Your task to perform on an android device: Search for sushi restaurants on Maps Image 0: 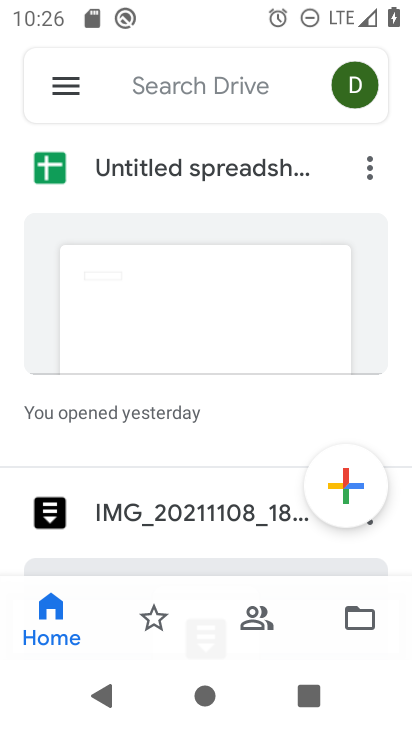
Step 0: press home button
Your task to perform on an android device: Search for sushi restaurants on Maps Image 1: 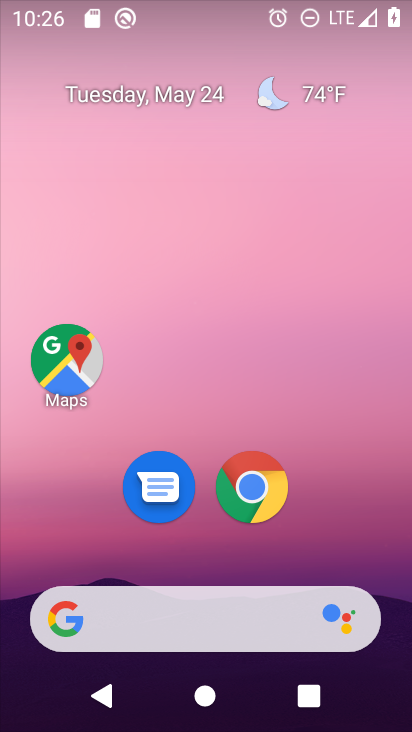
Step 1: click (65, 364)
Your task to perform on an android device: Search for sushi restaurants on Maps Image 2: 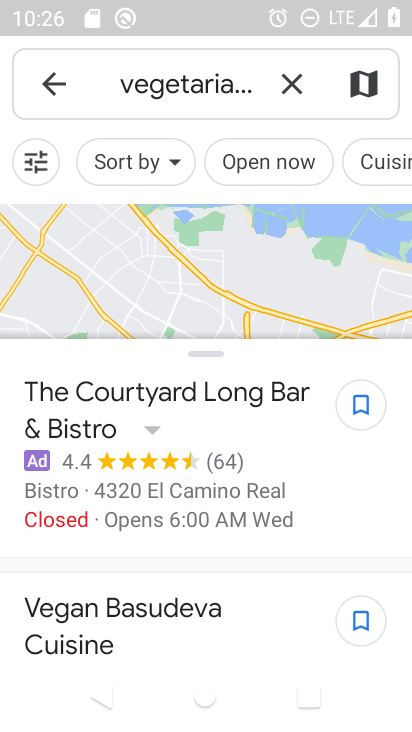
Step 2: click (278, 90)
Your task to perform on an android device: Search for sushi restaurants on Maps Image 3: 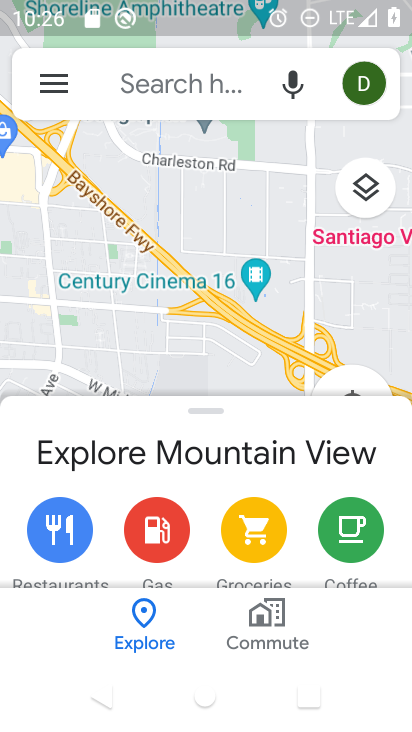
Step 3: click (121, 82)
Your task to perform on an android device: Search for sushi restaurants on Maps Image 4: 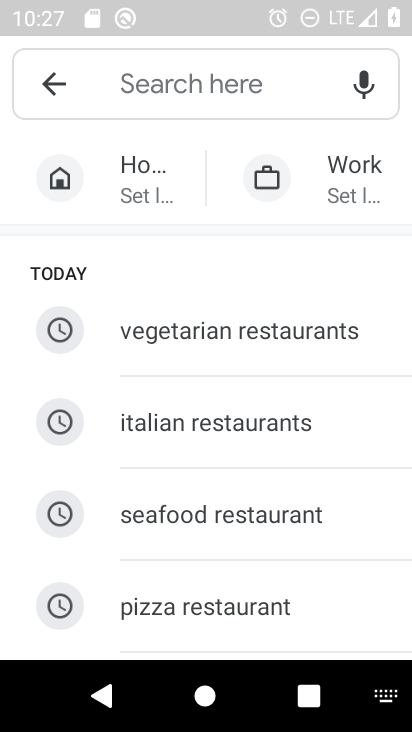
Step 4: type "sushi restaurants "
Your task to perform on an android device: Search for sushi restaurants on Maps Image 5: 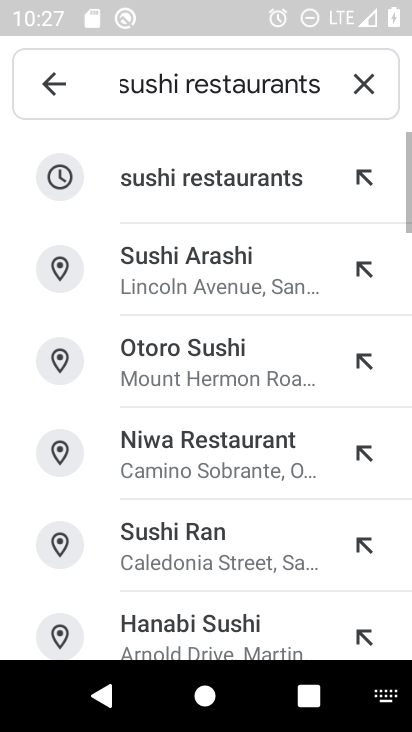
Step 5: click (189, 183)
Your task to perform on an android device: Search for sushi restaurants on Maps Image 6: 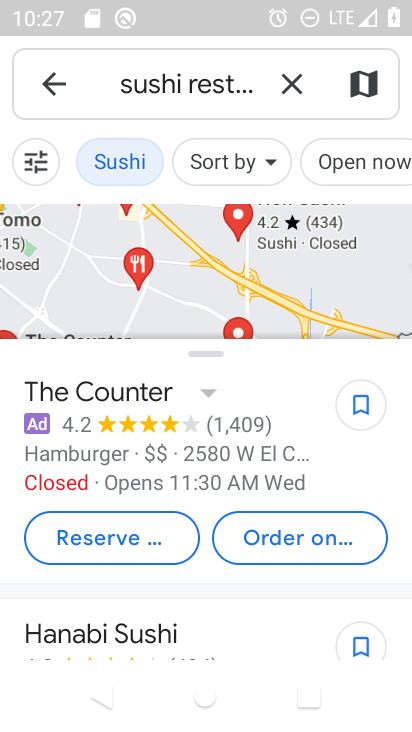
Step 6: task complete